Your task to perform on an android device: turn on wifi Image 0: 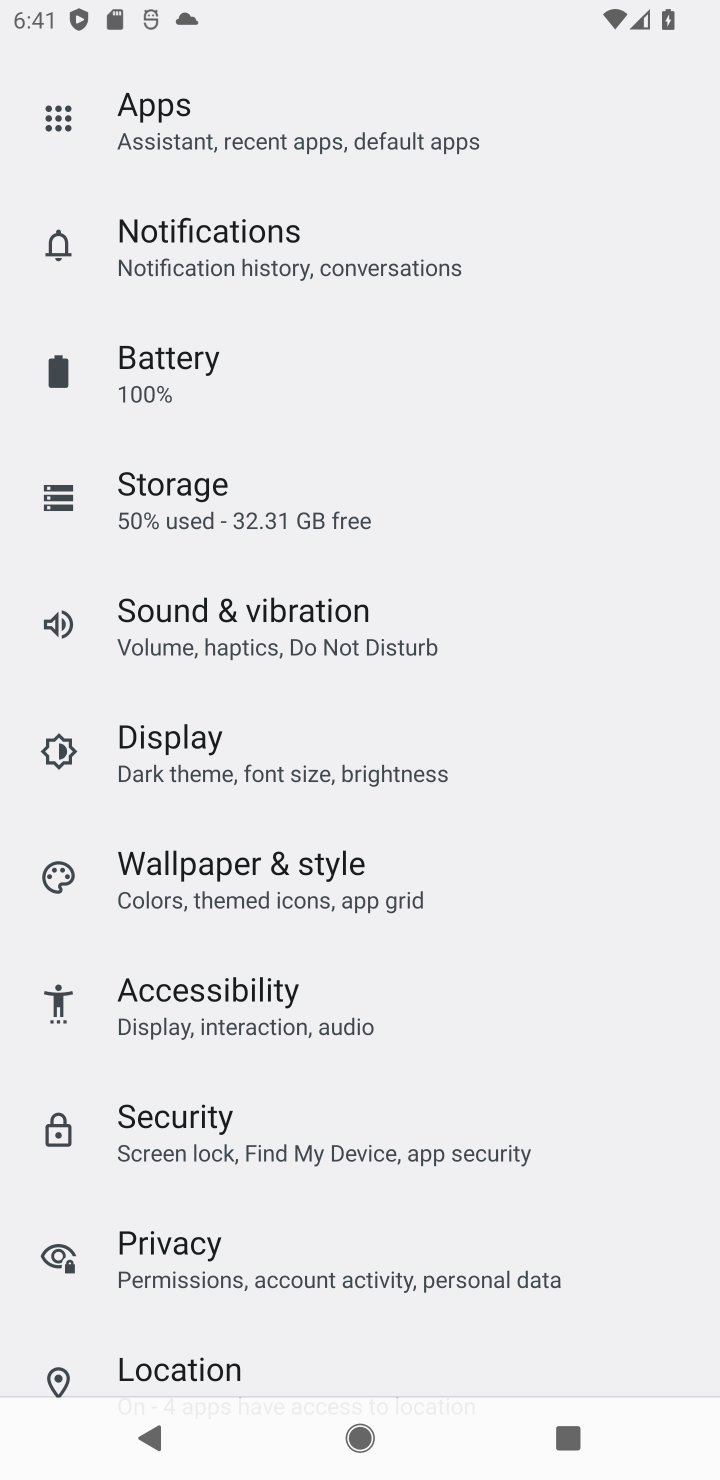
Step 0: drag from (324, 311) to (207, 1315)
Your task to perform on an android device: turn on wifi Image 1: 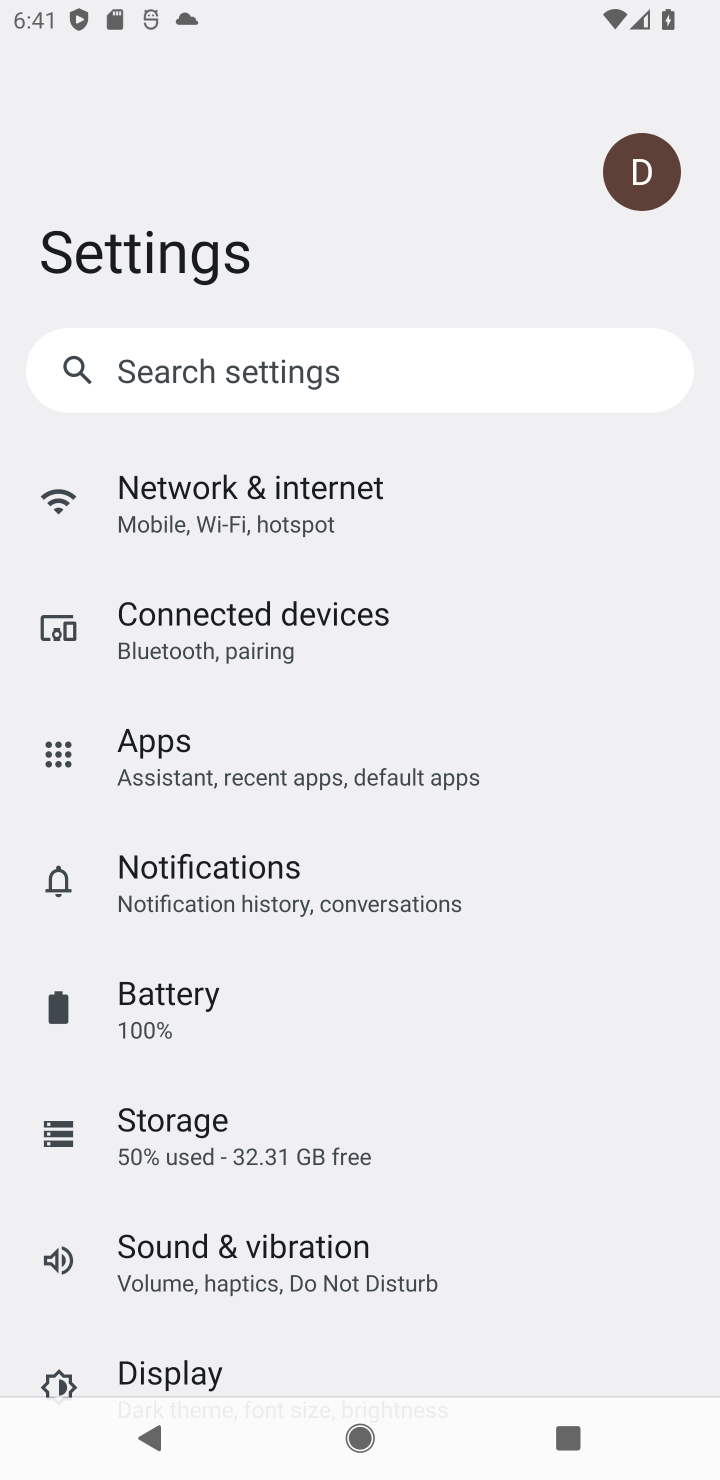
Step 1: click (231, 486)
Your task to perform on an android device: turn on wifi Image 2: 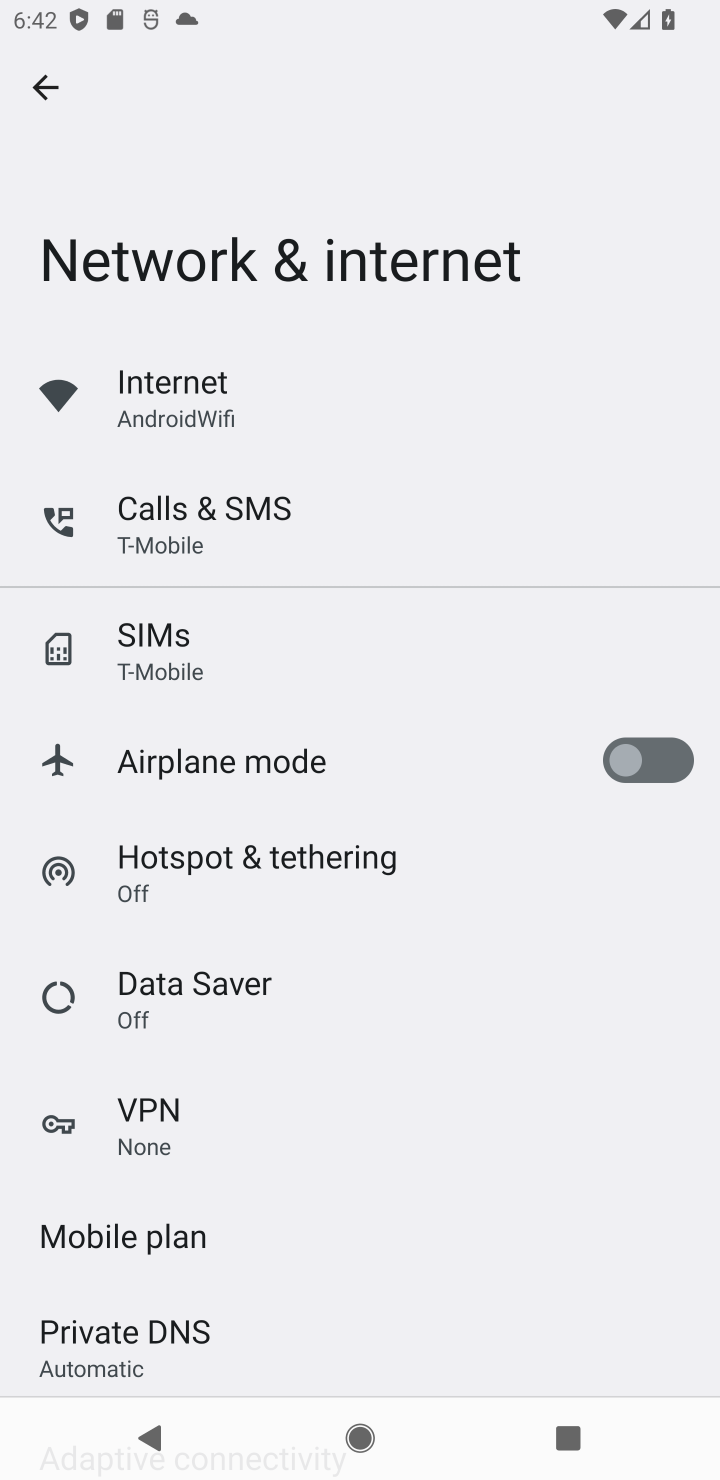
Step 2: click (166, 377)
Your task to perform on an android device: turn on wifi Image 3: 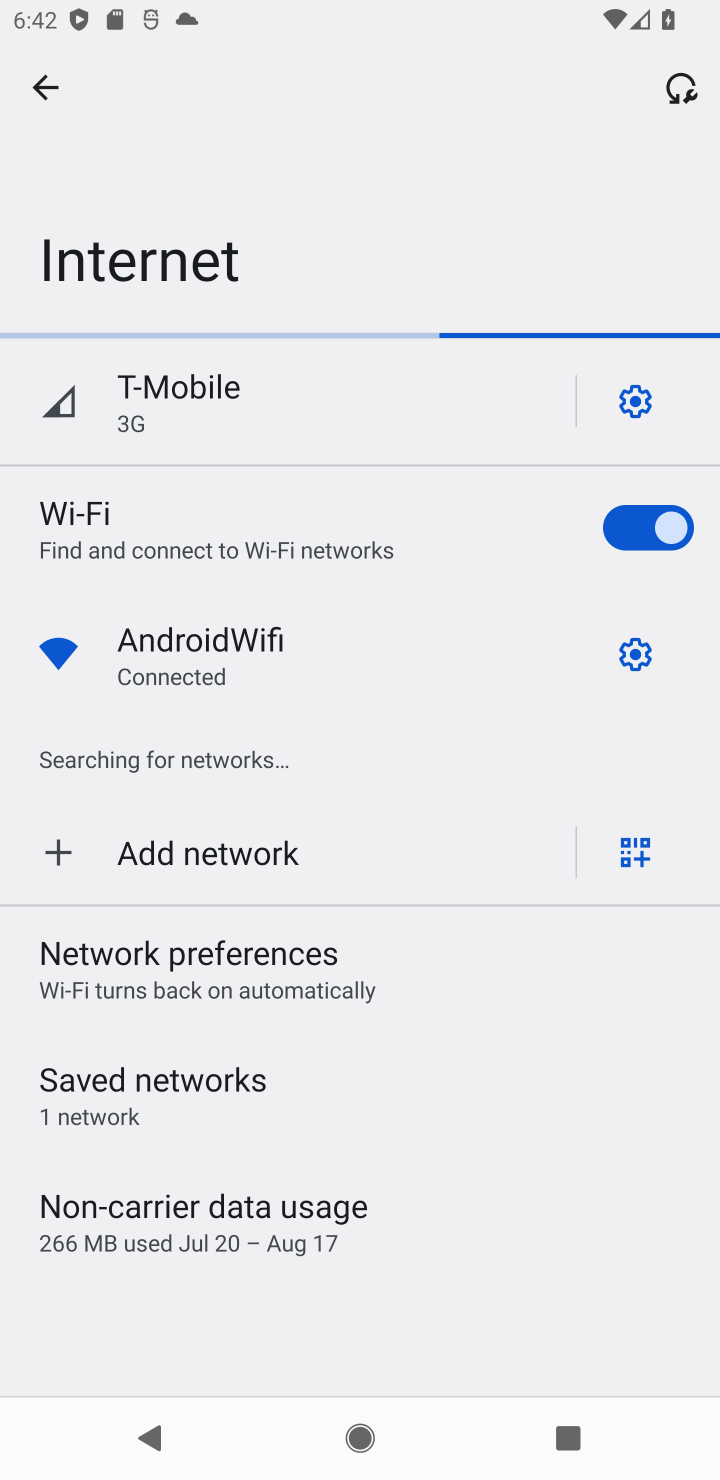
Step 3: task complete